Your task to perform on an android device: Search for Mexican restaurants on Maps Image 0: 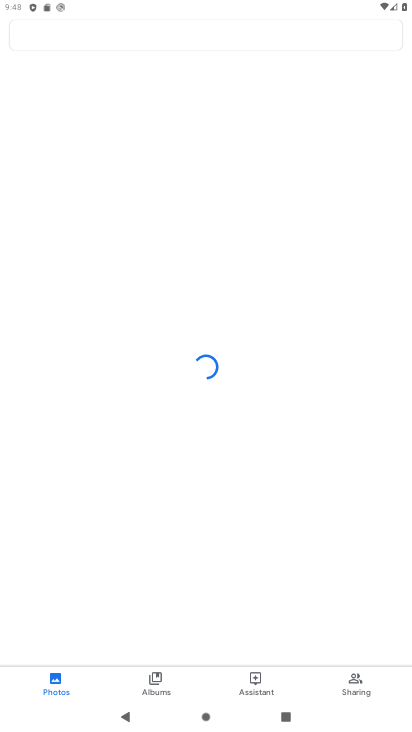
Step 0: press home button
Your task to perform on an android device: Search for Mexican restaurants on Maps Image 1: 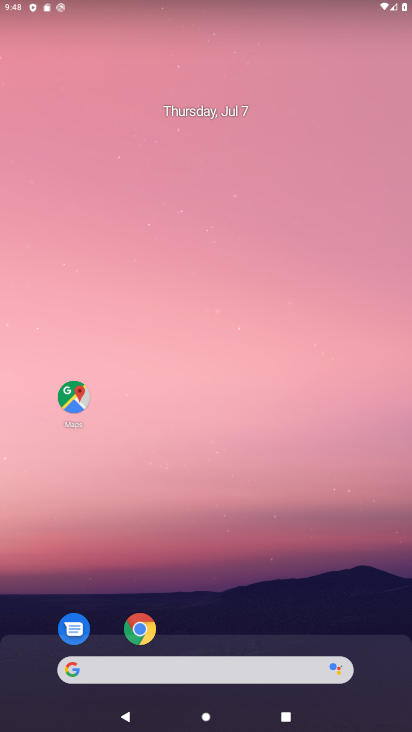
Step 1: drag from (233, 649) to (345, 524)
Your task to perform on an android device: Search for Mexican restaurants on Maps Image 2: 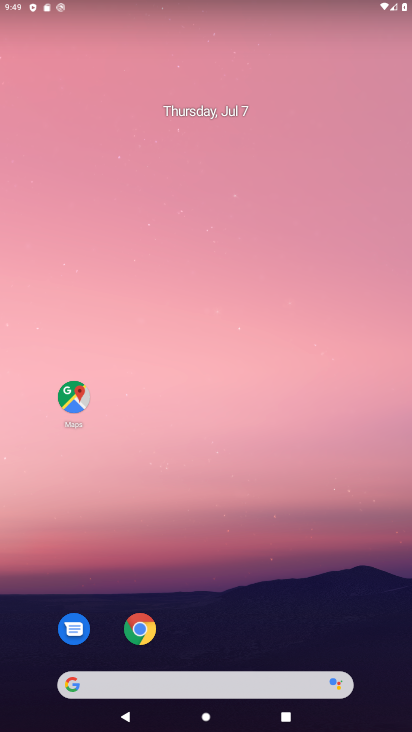
Step 2: drag from (181, 681) to (337, 551)
Your task to perform on an android device: Search for Mexican restaurants on Maps Image 3: 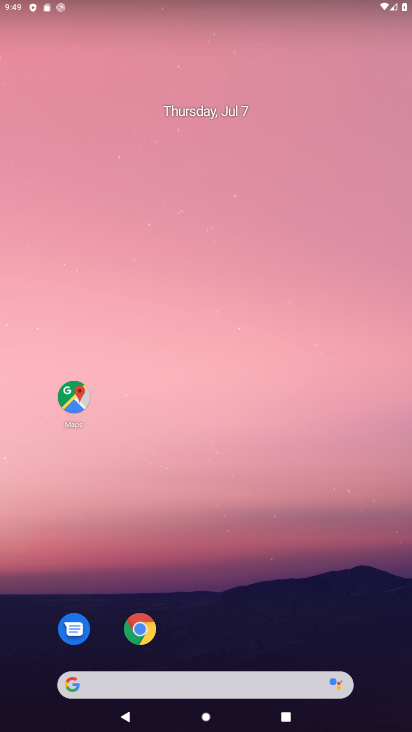
Step 3: drag from (243, 670) to (206, 119)
Your task to perform on an android device: Search for Mexican restaurants on Maps Image 4: 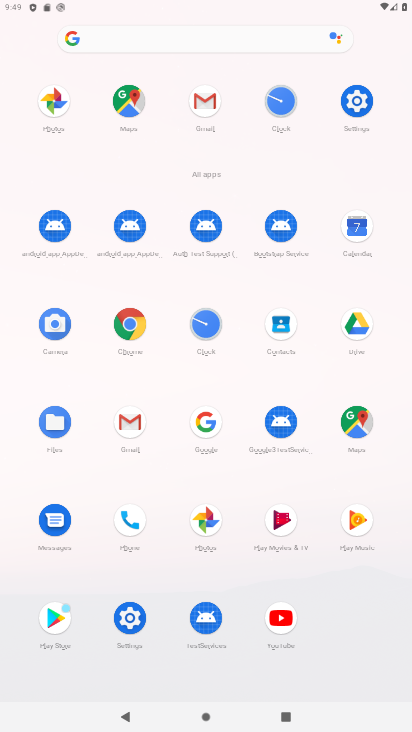
Step 4: click (139, 91)
Your task to perform on an android device: Search for Mexican restaurants on Maps Image 5: 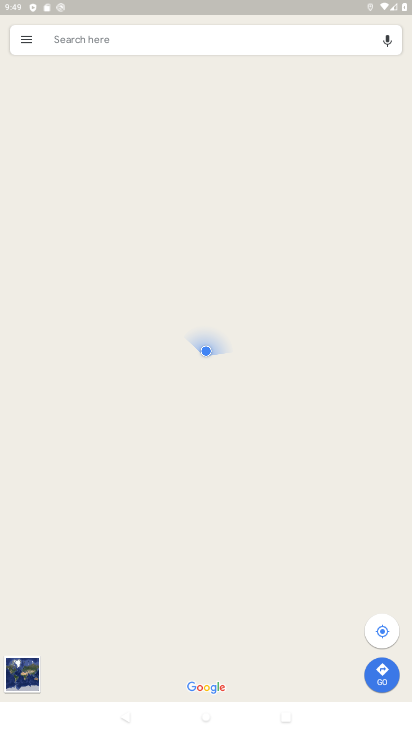
Step 5: click (176, 46)
Your task to perform on an android device: Search for Mexican restaurants on Maps Image 6: 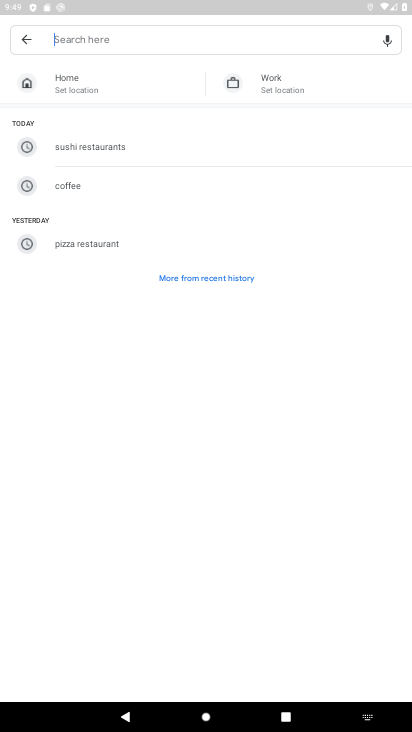
Step 6: type "Mexican restaurants"
Your task to perform on an android device: Search for Mexican restaurants on Maps Image 7: 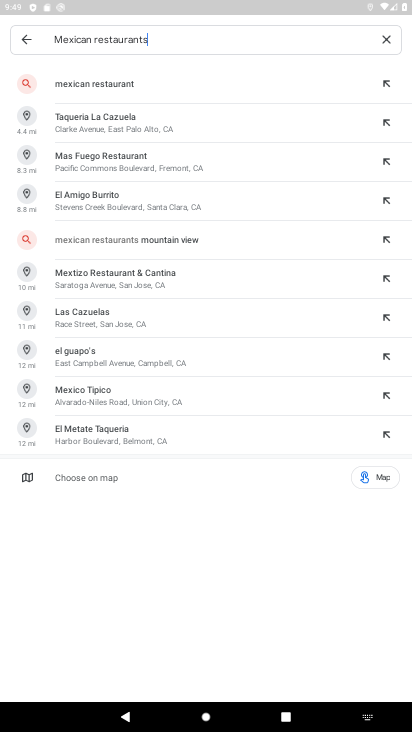
Step 7: click (77, 75)
Your task to perform on an android device: Search for Mexican restaurants on Maps Image 8: 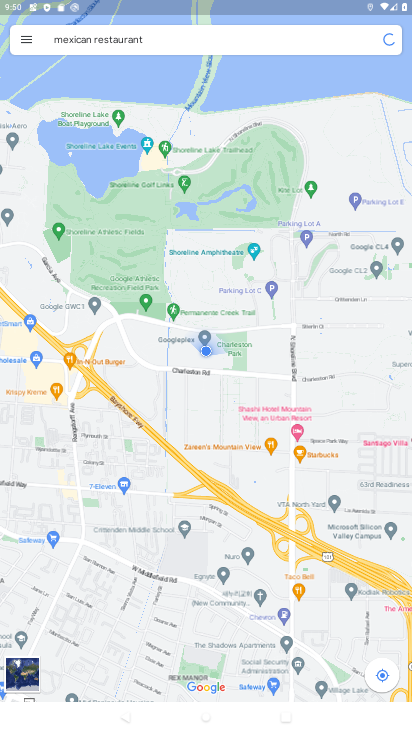
Step 8: task complete